Your task to perform on an android device: Show me productivity apps on the Play Store Image 0: 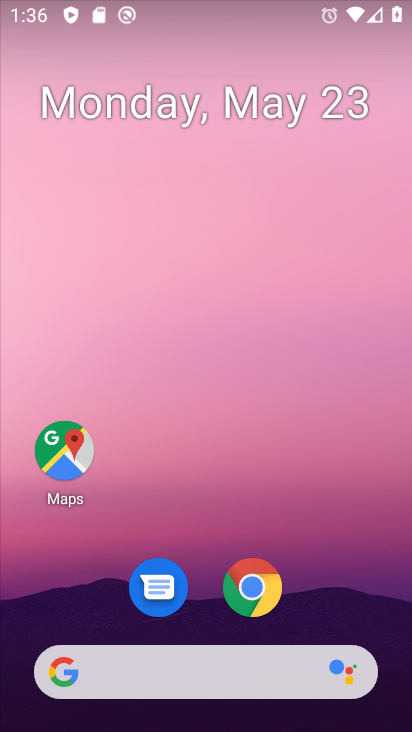
Step 0: drag from (380, 618) to (367, 21)
Your task to perform on an android device: Show me productivity apps on the Play Store Image 1: 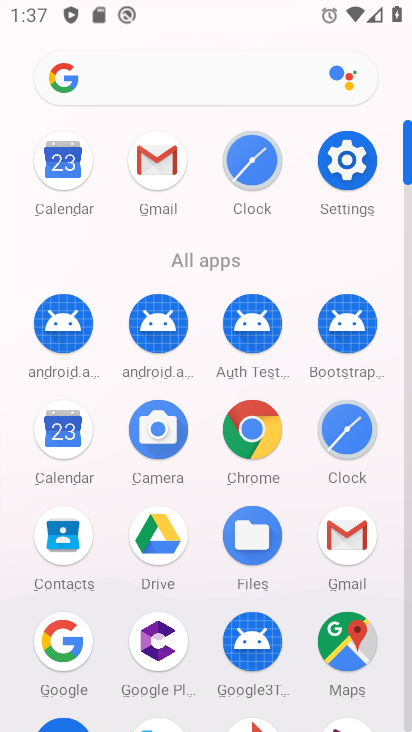
Step 1: click (412, 640)
Your task to perform on an android device: Show me productivity apps on the Play Store Image 2: 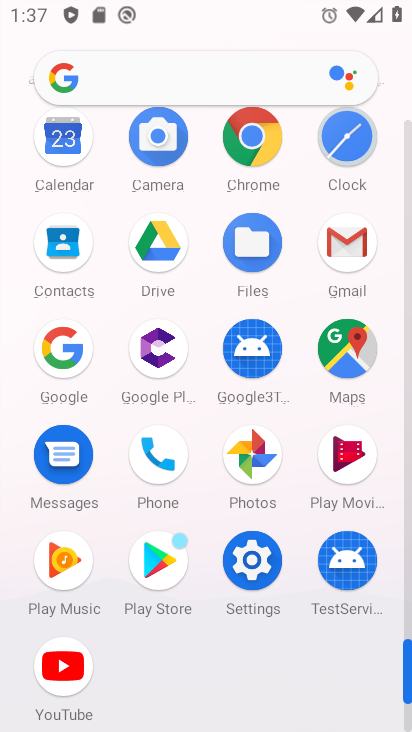
Step 2: click (158, 576)
Your task to perform on an android device: Show me productivity apps on the Play Store Image 3: 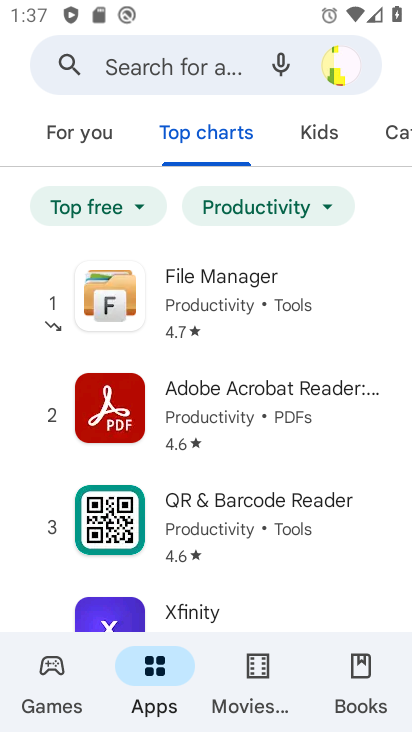
Step 3: task complete